Your task to perform on an android device: Open accessibility settings Image 0: 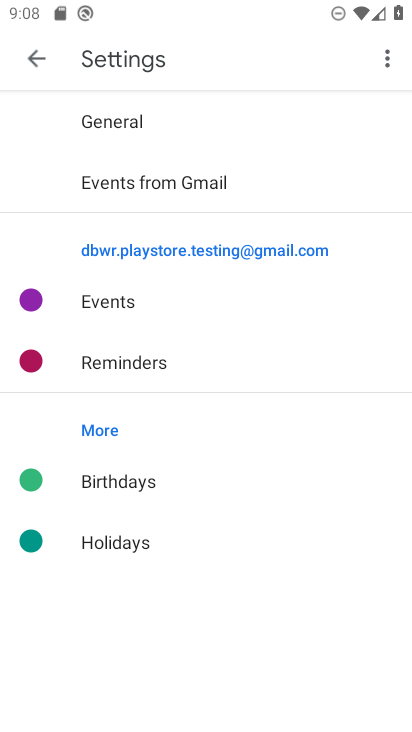
Step 0: press home button
Your task to perform on an android device: Open accessibility settings Image 1: 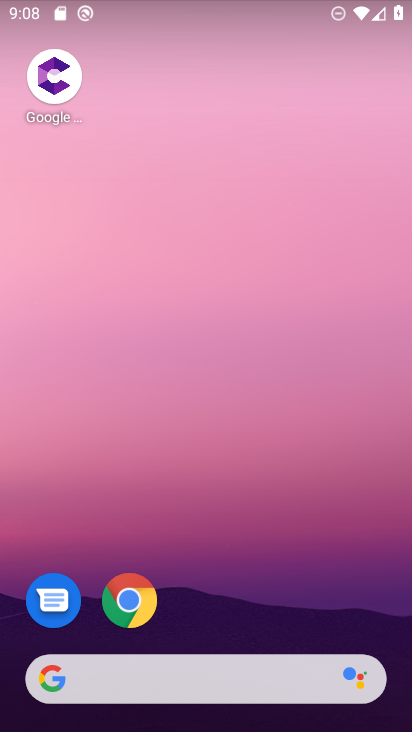
Step 1: drag from (149, 637) to (203, 260)
Your task to perform on an android device: Open accessibility settings Image 2: 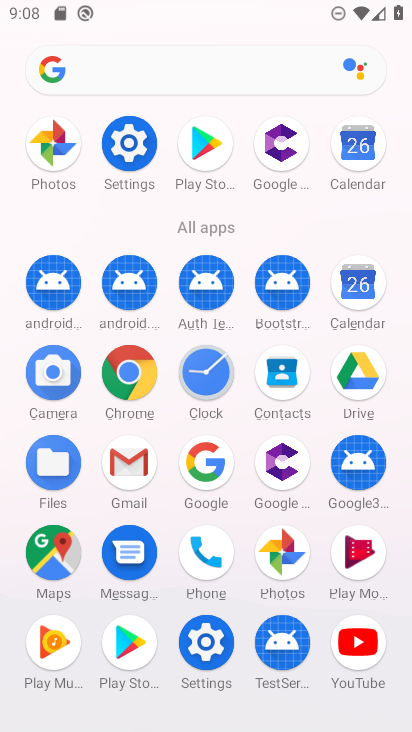
Step 2: click (126, 142)
Your task to perform on an android device: Open accessibility settings Image 3: 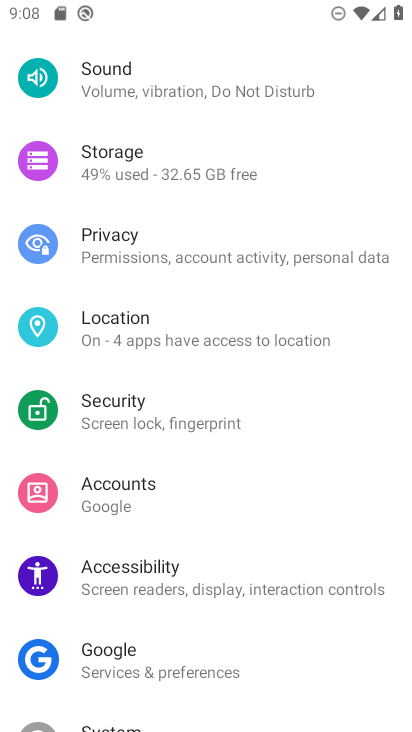
Step 3: drag from (134, 703) to (213, 315)
Your task to perform on an android device: Open accessibility settings Image 4: 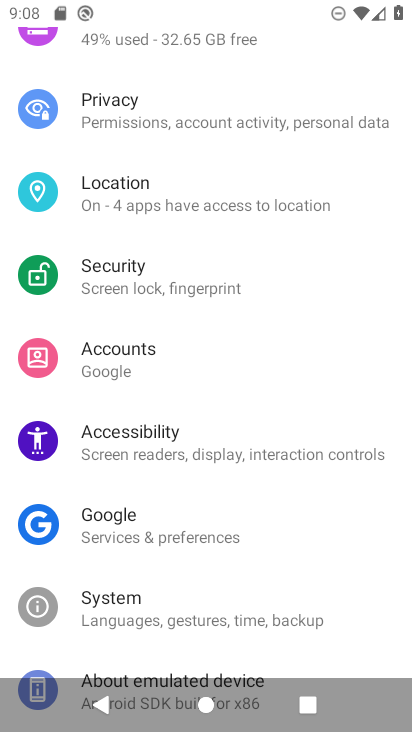
Step 4: click (158, 446)
Your task to perform on an android device: Open accessibility settings Image 5: 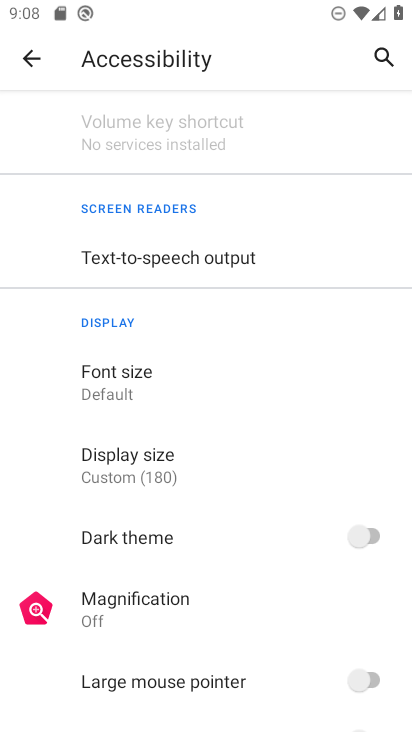
Step 5: task complete